Your task to perform on an android device: What's on my calendar tomorrow? Image 0: 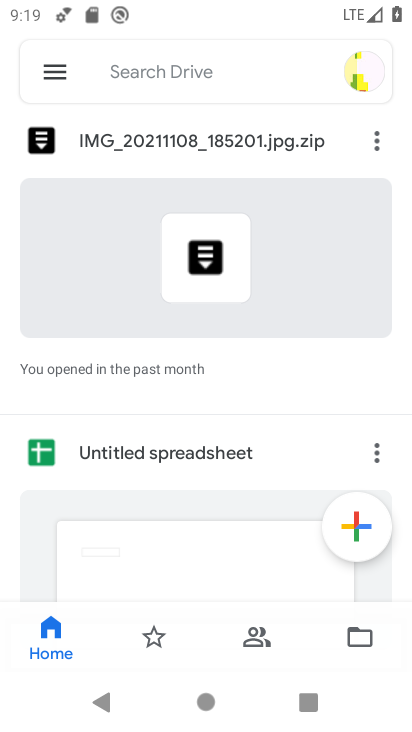
Step 0: press home button
Your task to perform on an android device: What's on my calendar tomorrow? Image 1: 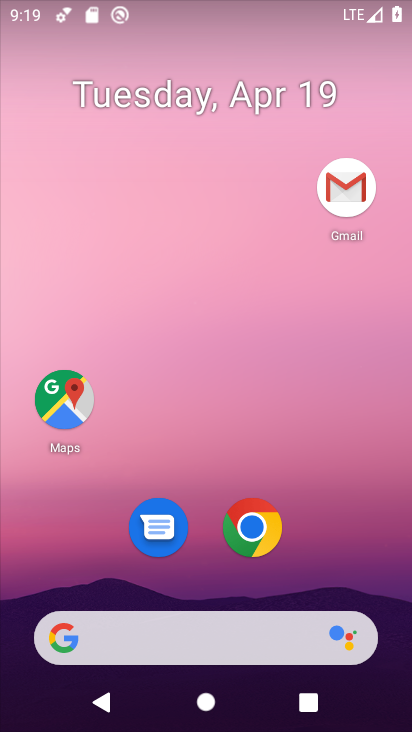
Step 1: drag from (389, 534) to (362, 99)
Your task to perform on an android device: What's on my calendar tomorrow? Image 2: 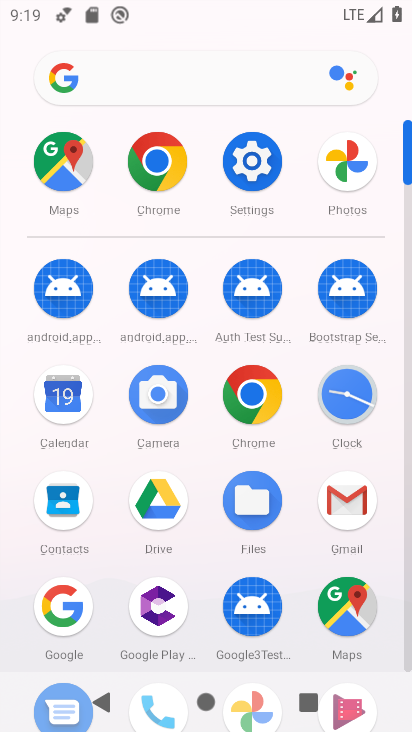
Step 2: click (52, 388)
Your task to perform on an android device: What's on my calendar tomorrow? Image 3: 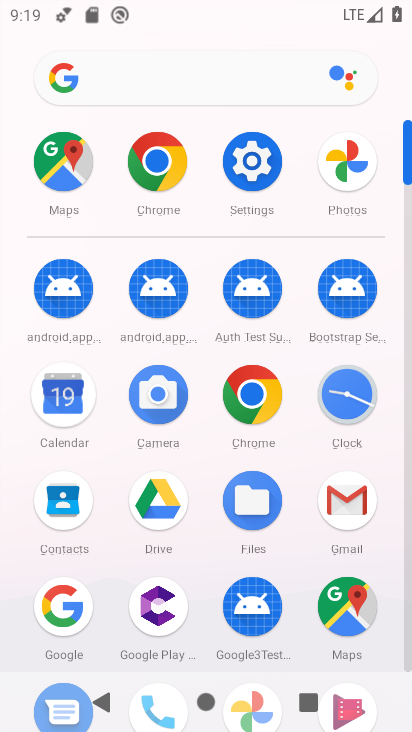
Step 3: click (52, 388)
Your task to perform on an android device: What's on my calendar tomorrow? Image 4: 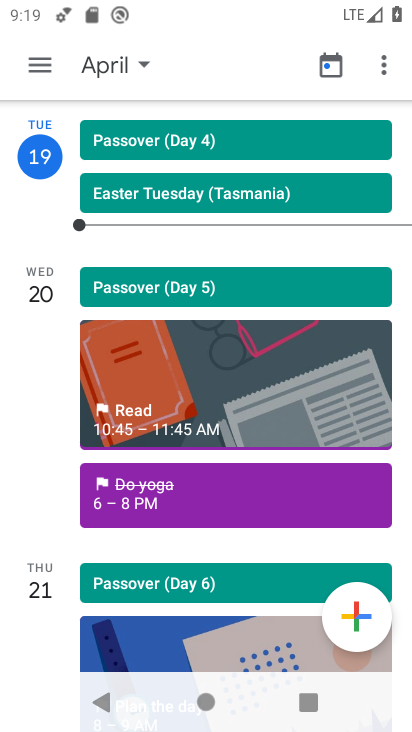
Step 4: click (111, 66)
Your task to perform on an android device: What's on my calendar tomorrow? Image 5: 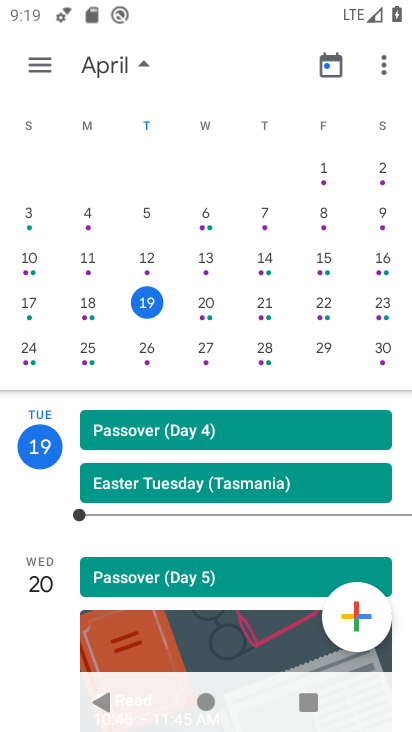
Step 5: click (205, 302)
Your task to perform on an android device: What's on my calendar tomorrow? Image 6: 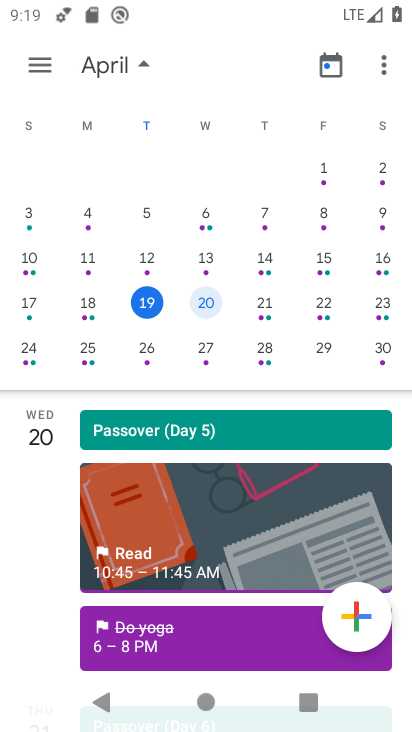
Step 6: task complete